Your task to perform on an android device: turn off picture-in-picture Image 0: 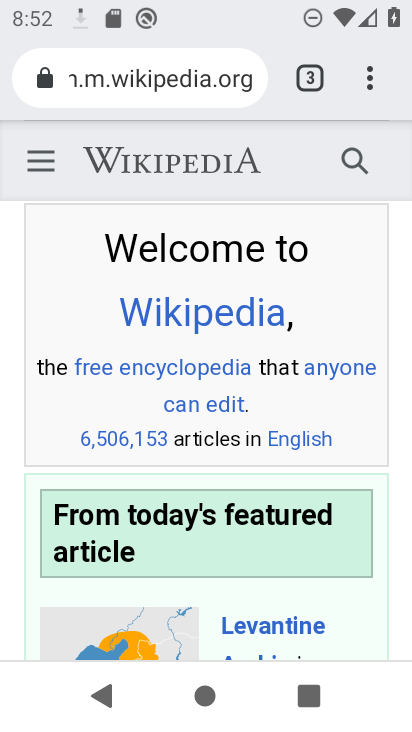
Step 0: press home button
Your task to perform on an android device: turn off picture-in-picture Image 1: 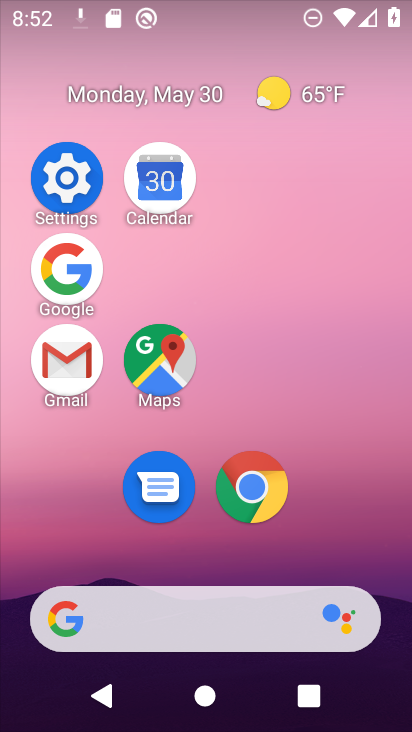
Step 1: click (274, 498)
Your task to perform on an android device: turn off picture-in-picture Image 2: 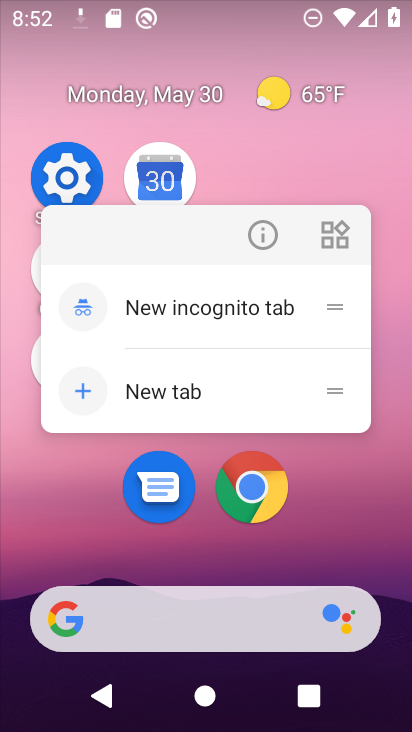
Step 2: click (261, 249)
Your task to perform on an android device: turn off picture-in-picture Image 3: 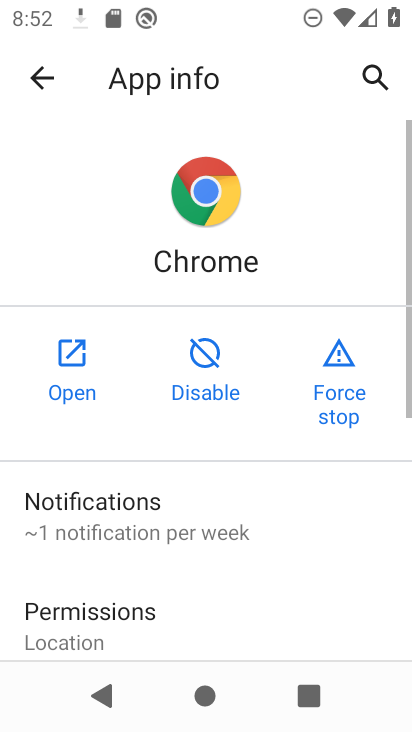
Step 3: drag from (282, 586) to (251, 169)
Your task to perform on an android device: turn off picture-in-picture Image 4: 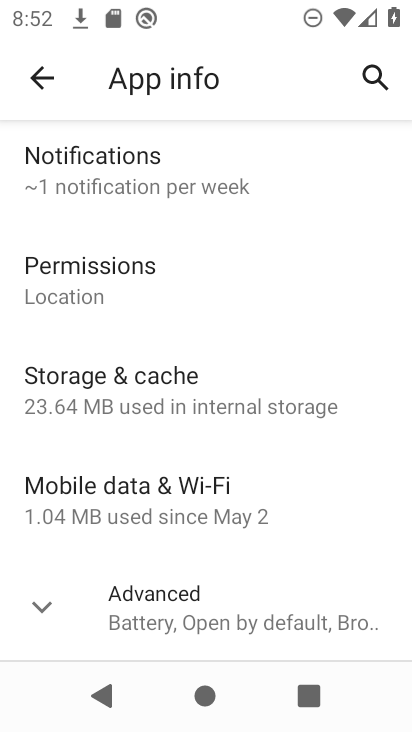
Step 4: click (263, 600)
Your task to perform on an android device: turn off picture-in-picture Image 5: 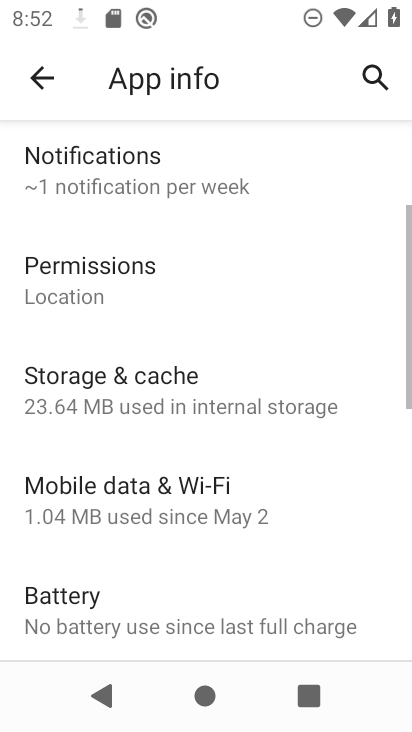
Step 5: drag from (262, 600) to (243, 189)
Your task to perform on an android device: turn off picture-in-picture Image 6: 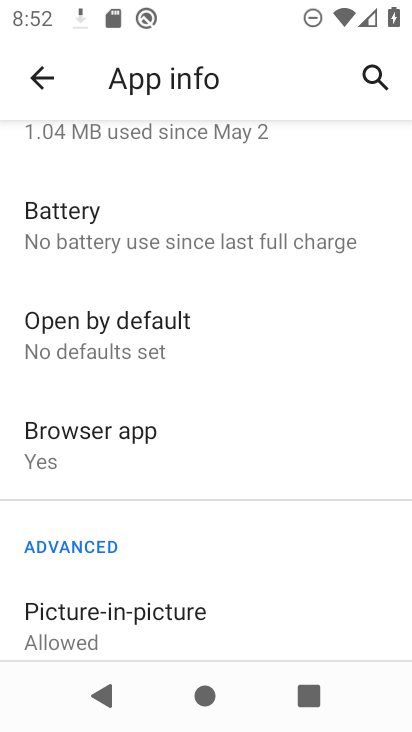
Step 6: drag from (292, 592) to (329, 225)
Your task to perform on an android device: turn off picture-in-picture Image 7: 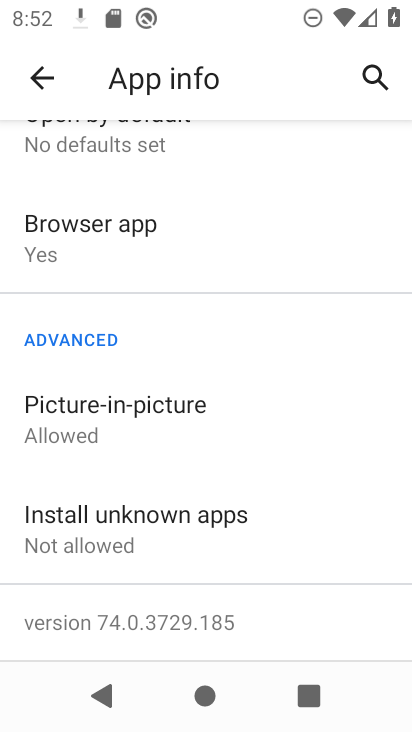
Step 7: click (238, 402)
Your task to perform on an android device: turn off picture-in-picture Image 8: 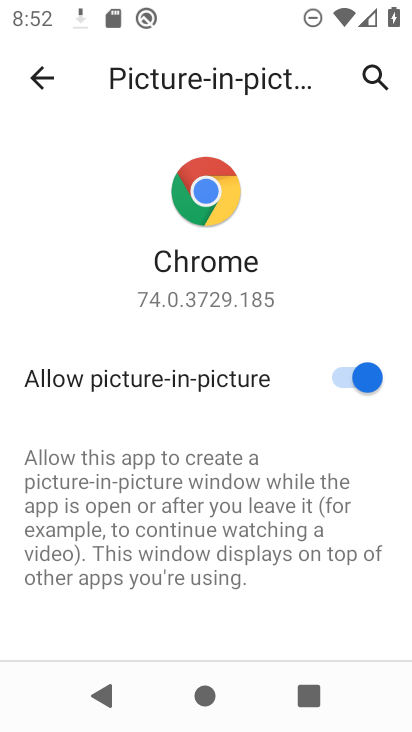
Step 8: click (374, 367)
Your task to perform on an android device: turn off picture-in-picture Image 9: 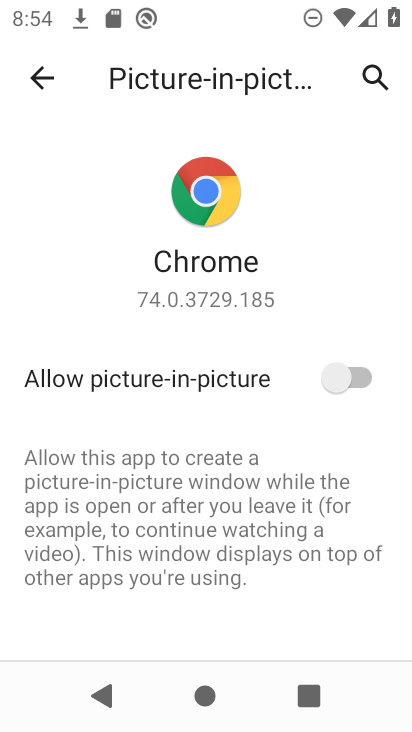
Step 9: task complete